Your task to perform on an android device: visit the assistant section in the google photos Image 0: 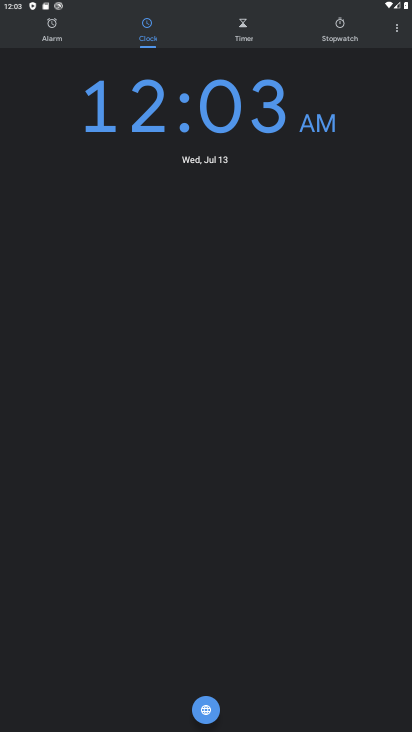
Step 0: task complete